Your task to perform on an android device: What is the news today? Image 0: 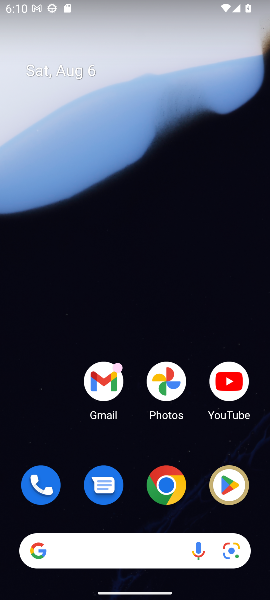
Step 0: click (109, 547)
Your task to perform on an android device: What is the news today? Image 1: 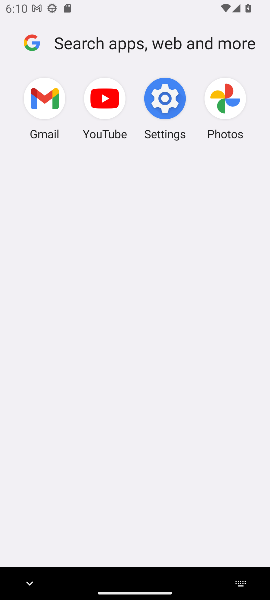
Step 1: task complete